Your task to perform on an android device: Go to Google Image 0: 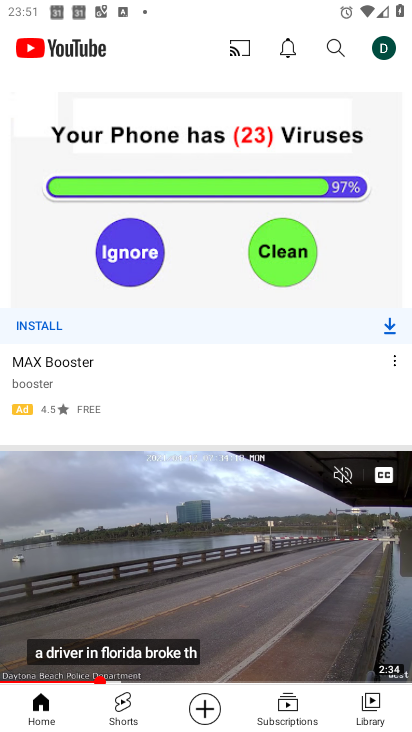
Step 0: press home button
Your task to perform on an android device: Go to Google Image 1: 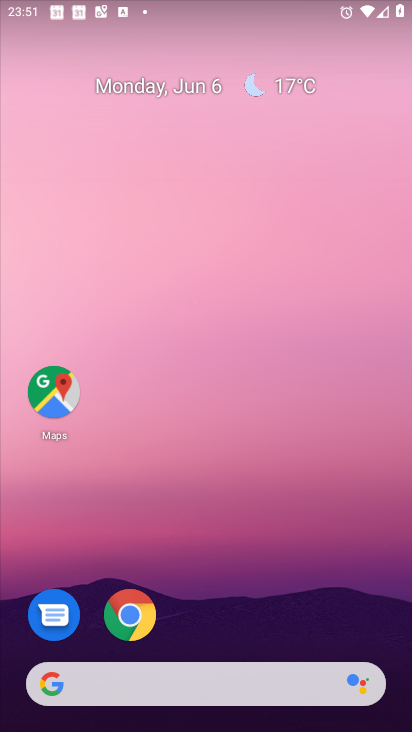
Step 1: drag from (389, 623) to (302, 81)
Your task to perform on an android device: Go to Google Image 2: 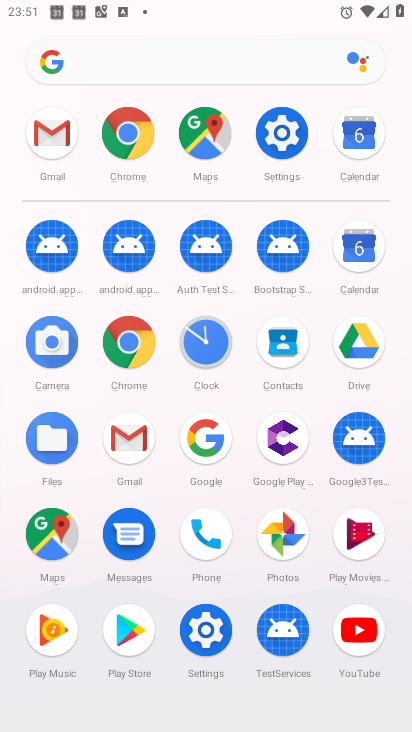
Step 2: click (204, 434)
Your task to perform on an android device: Go to Google Image 3: 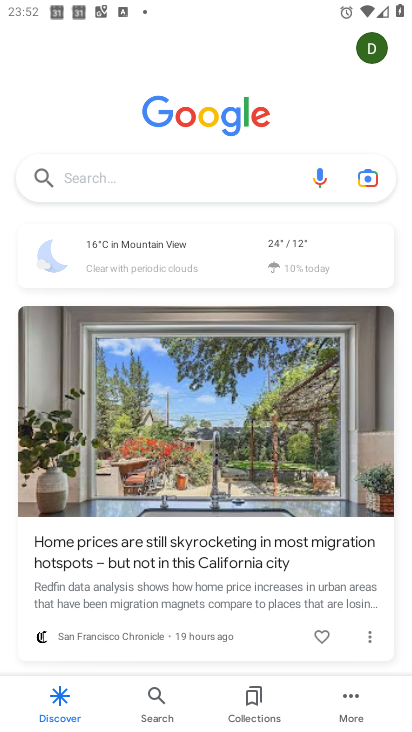
Step 3: task complete